Your task to perform on an android device: show emergency info Image 0: 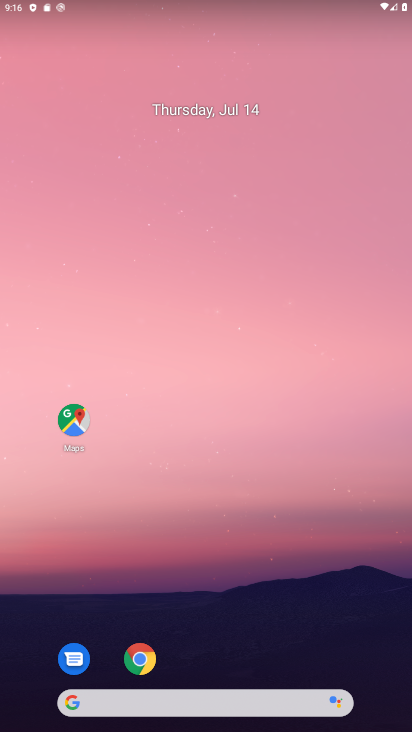
Step 0: drag from (219, 636) to (228, 159)
Your task to perform on an android device: show emergency info Image 1: 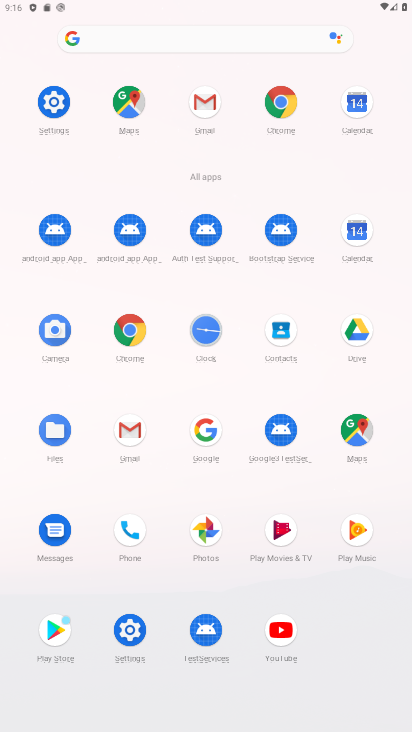
Step 1: click (46, 106)
Your task to perform on an android device: show emergency info Image 2: 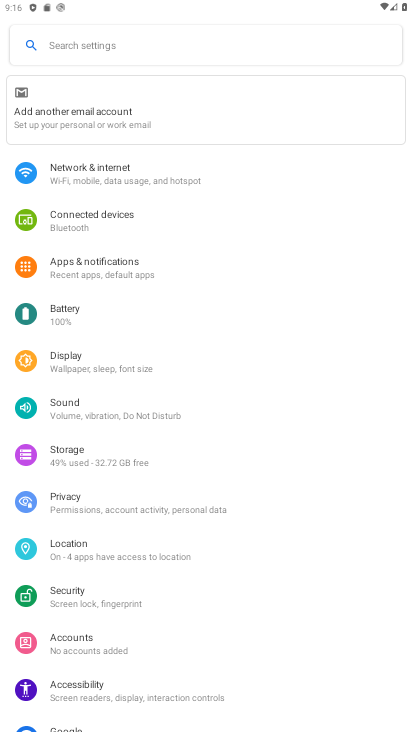
Step 2: drag from (143, 696) to (200, 209)
Your task to perform on an android device: show emergency info Image 3: 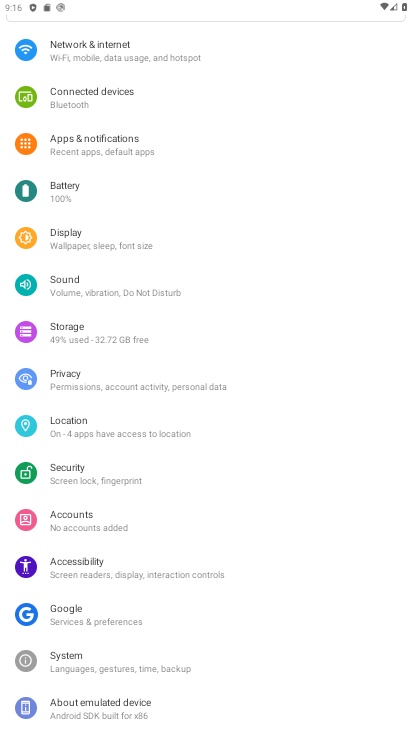
Step 3: click (149, 695)
Your task to perform on an android device: show emergency info Image 4: 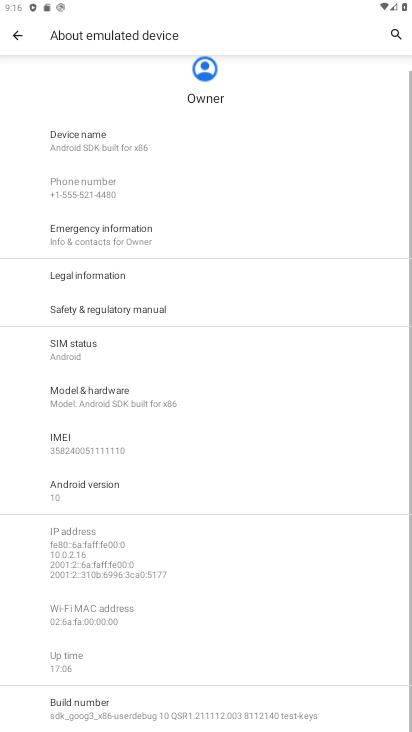
Step 4: drag from (171, 643) to (249, 34)
Your task to perform on an android device: show emergency info Image 5: 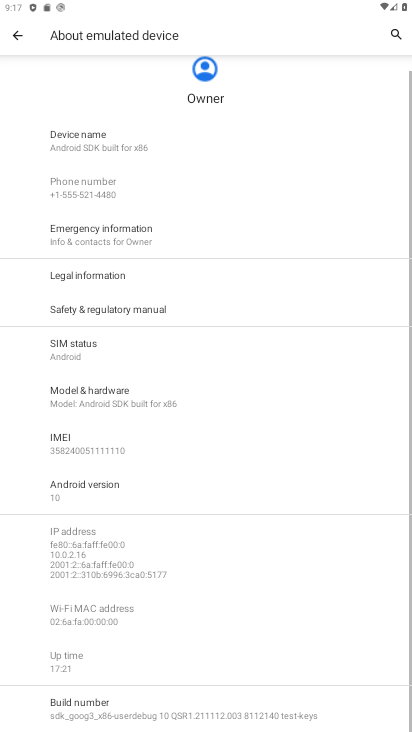
Step 5: drag from (187, 668) to (194, 509)
Your task to perform on an android device: show emergency info Image 6: 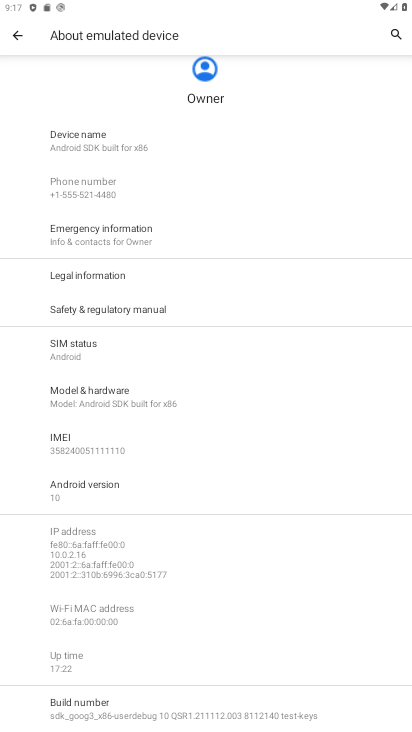
Step 6: click (141, 244)
Your task to perform on an android device: show emergency info Image 7: 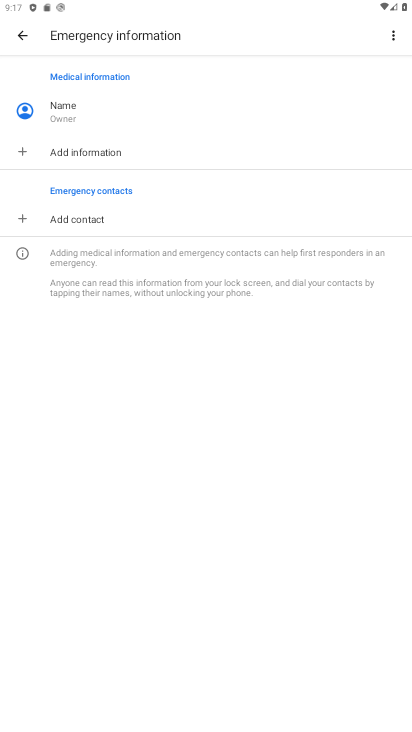
Step 7: task complete